Your task to perform on an android device: Open settings Image 0: 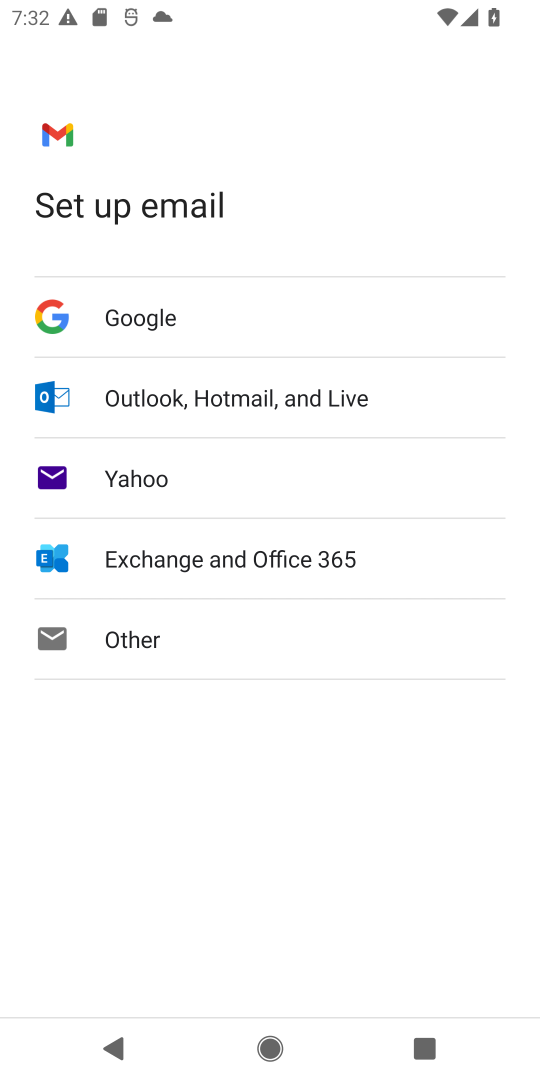
Step 0: press enter
Your task to perform on an android device: Open settings Image 1: 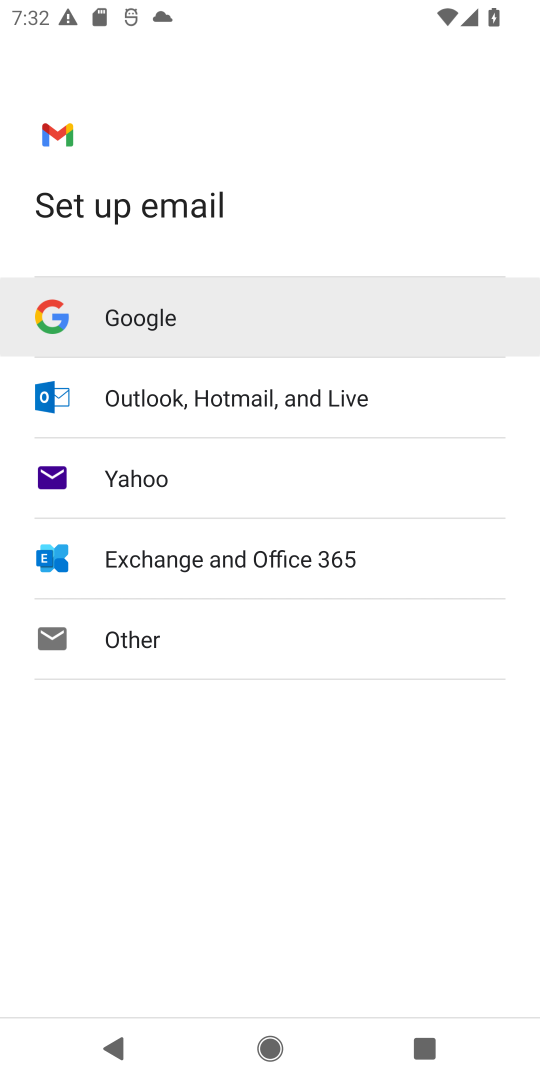
Step 1: press home button
Your task to perform on an android device: Open settings Image 2: 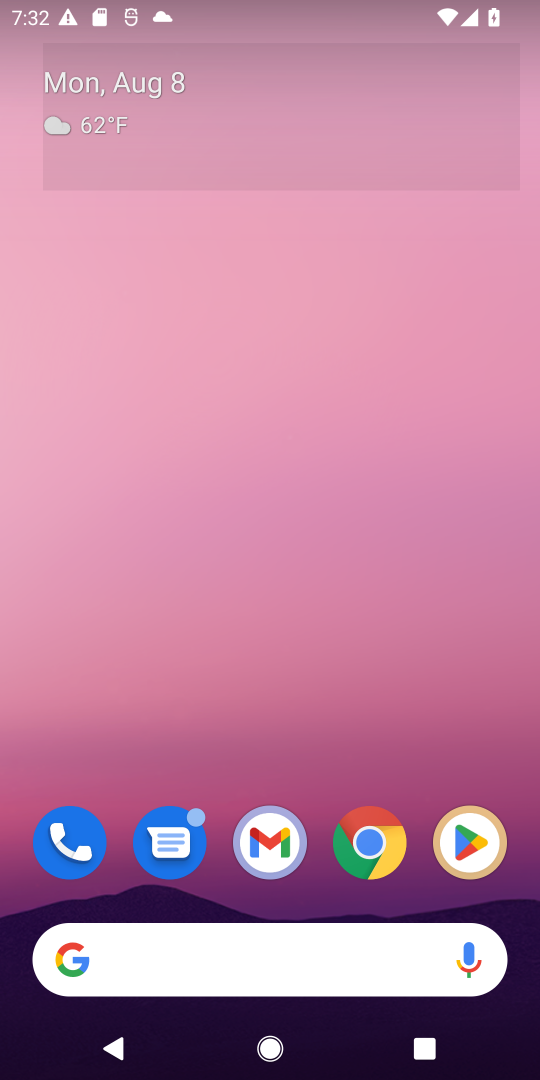
Step 2: drag from (247, 732) to (261, 89)
Your task to perform on an android device: Open settings Image 3: 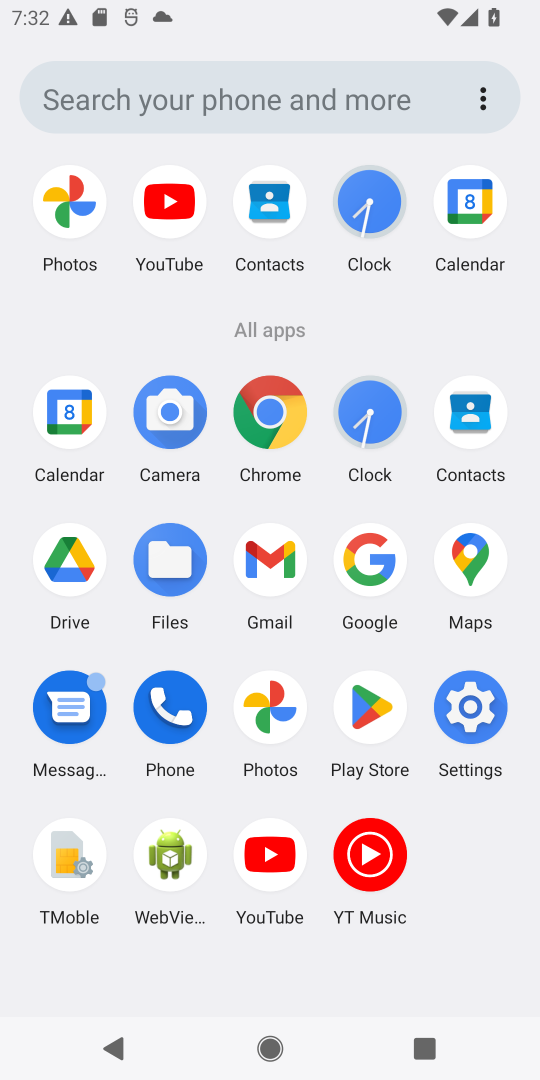
Step 3: click (479, 714)
Your task to perform on an android device: Open settings Image 4: 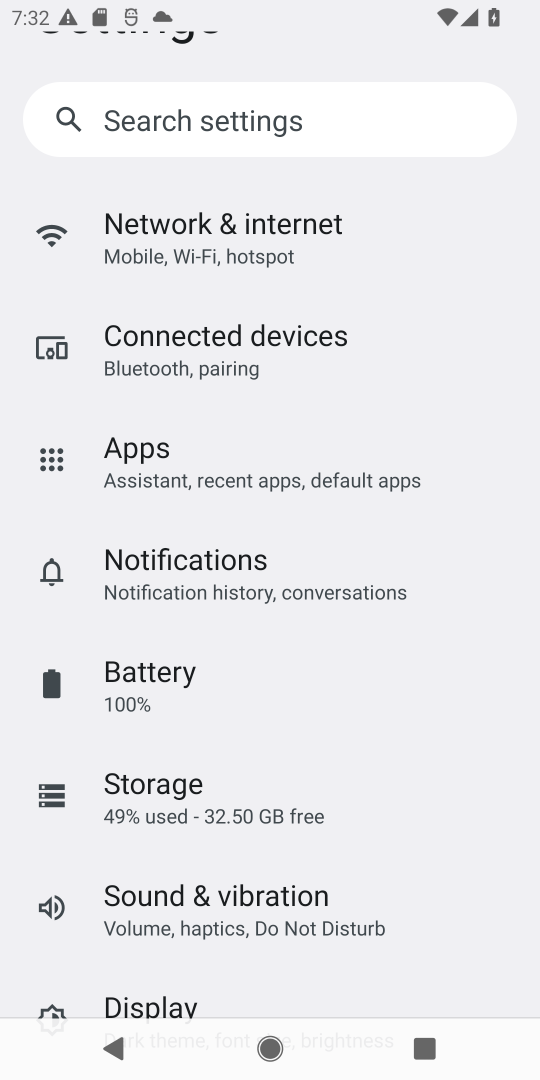
Step 4: task complete